Your task to perform on an android device: turn on sleep mode Image 0: 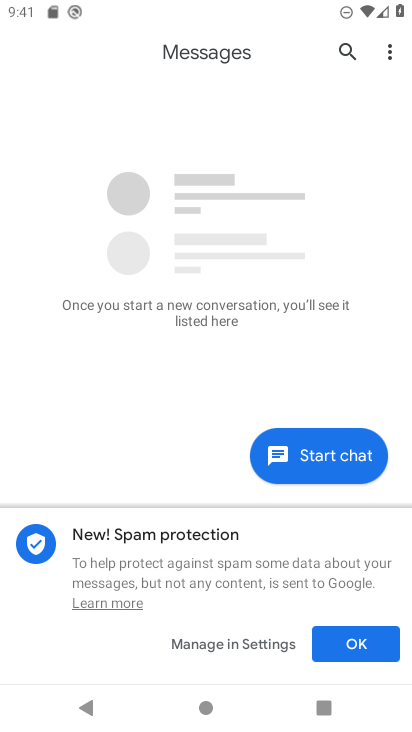
Step 0: press home button
Your task to perform on an android device: turn on sleep mode Image 1: 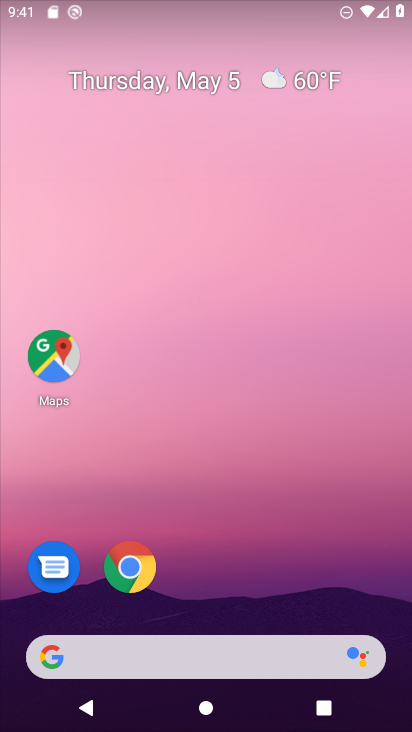
Step 1: drag from (224, 727) to (223, 155)
Your task to perform on an android device: turn on sleep mode Image 2: 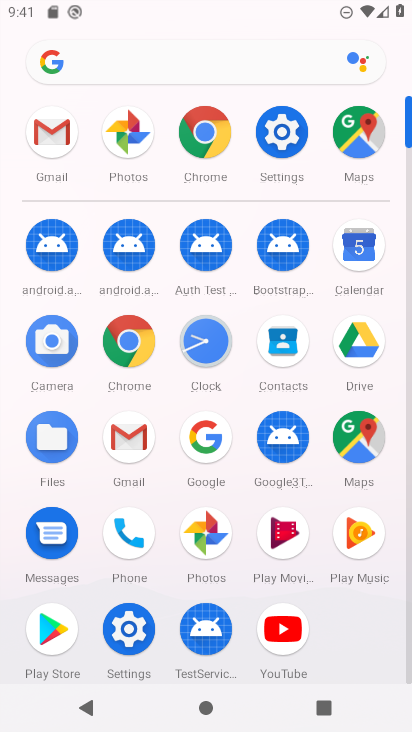
Step 2: click (280, 133)
Your task to perform on an android device: turn on sleep mode Image 3: 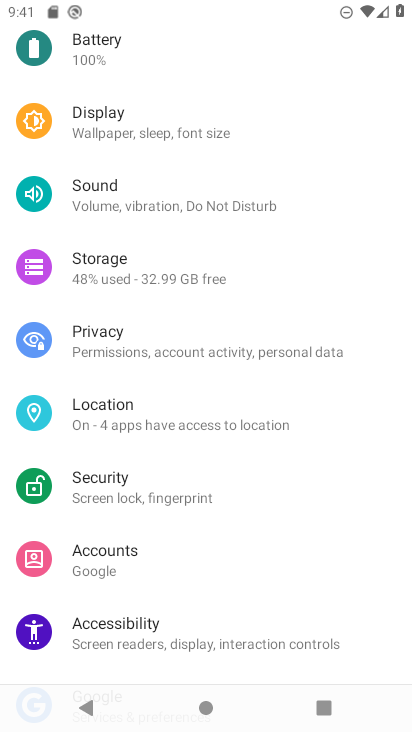
Step 3: task complete